Your task to perform on an android device: Go to privacy settings Image 0: 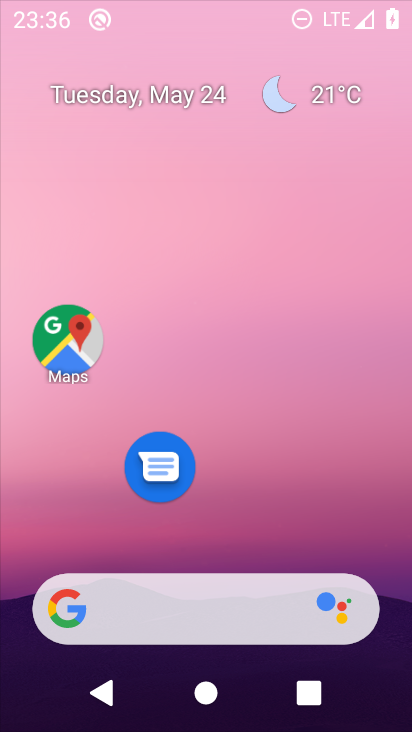
Step 0: click (189, 296)
Your task to perform on an android device: Go to privacy settings Image 1: 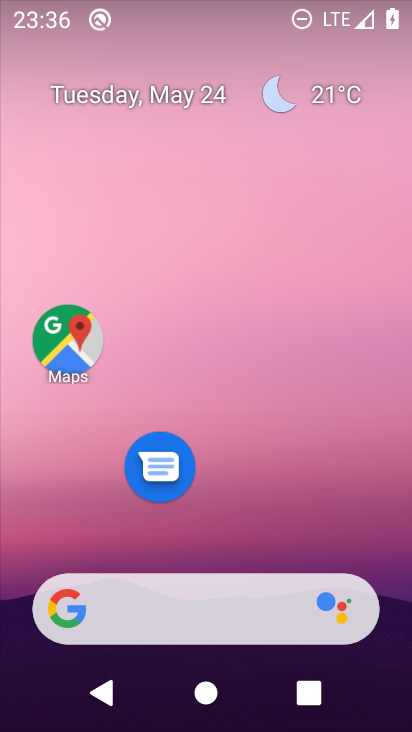
Step 1: drag from (228, 537) to (175, 44)
Your task to perform on an android device: Go to privacy settings Image 2: 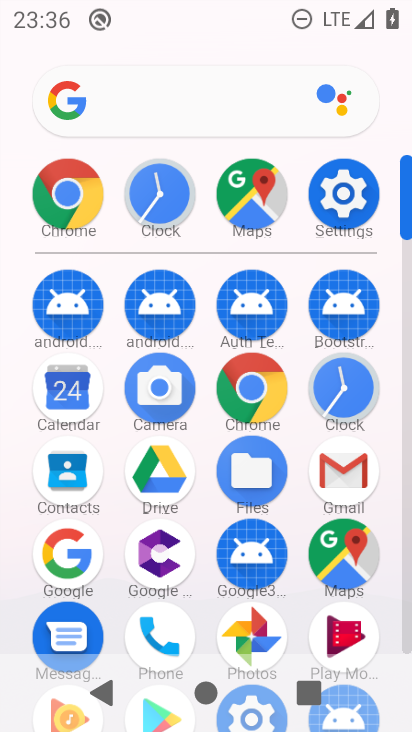
Step 2: click (355, 179)
Your task to perform on an android device: Go to privacy settings Image 3: 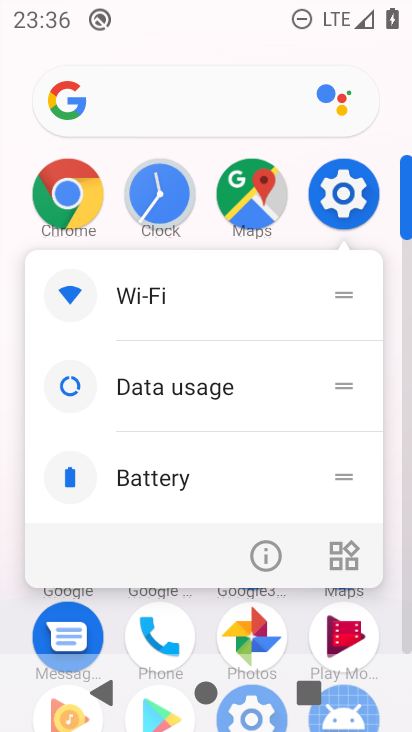
Step 3: click (269, 557)
Your task to perform on an android device: Go to privacy settings Image 4: 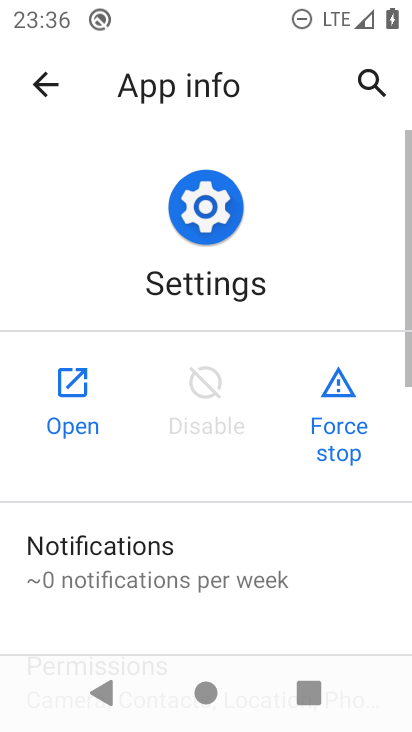
Step 4: click (87, 410)
Your task to perform on an android device: Go to privacy settings Image 5: 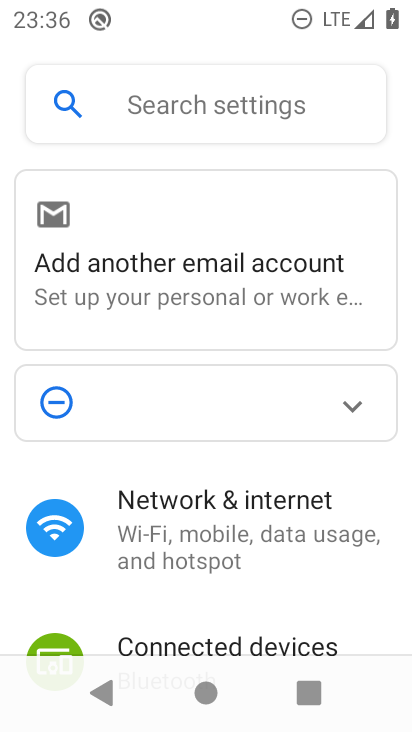
Step 5: drag from (228, 598) to (209, 1)
Your task to perform on an android device: Go to privacy settings Image 6: 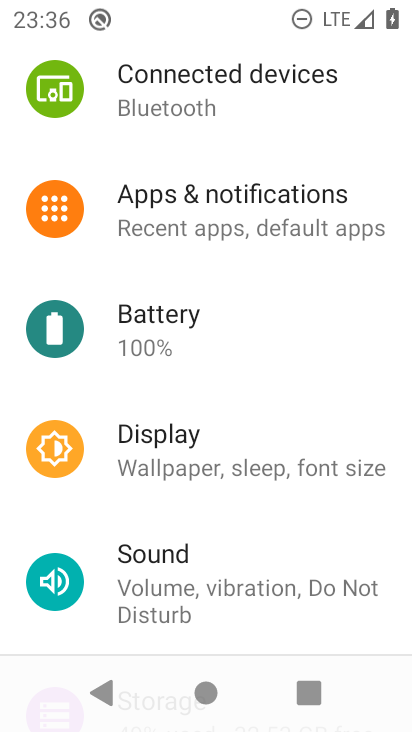
Step 6: drag from (222, 525) to (225, 190)
Your task to perform on an android device: Go to privacy settings Image 7: 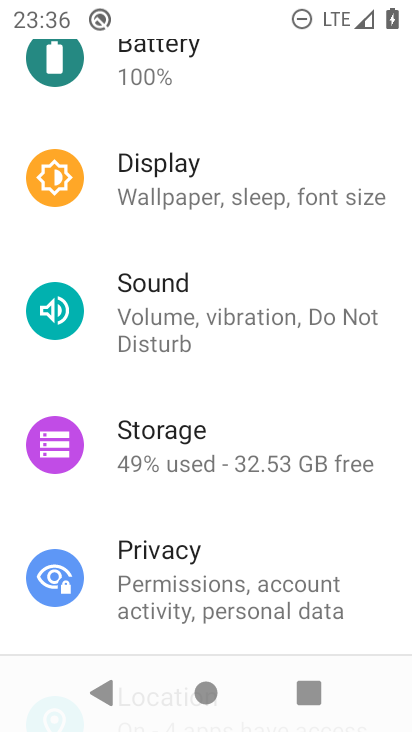
Step 7: click (180, 576)
Your task to perform on an android device: Go to privacy settings Image 8: 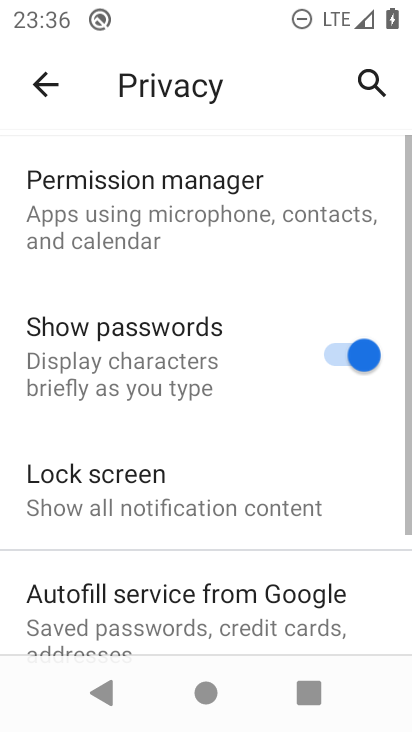
Step 8: task complete